Your task to perform on an android device: turn off notifications settings in the gmail app Image 0: 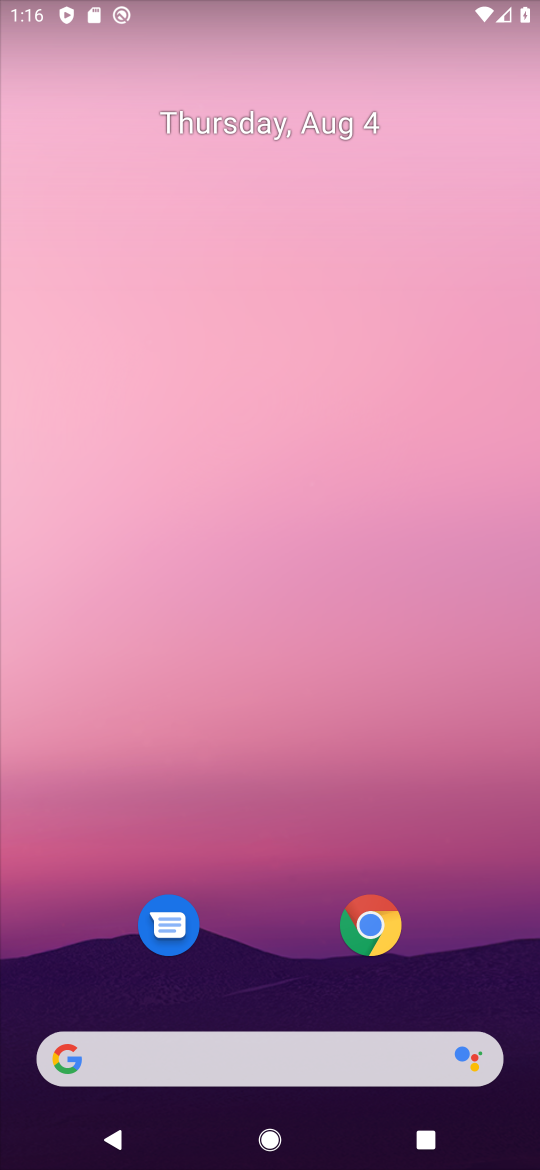
Step 0: drag from (258, 938) to (358, 39)
Your task to perform on an android device: turn off notifications settings in the gmail app Image 1: 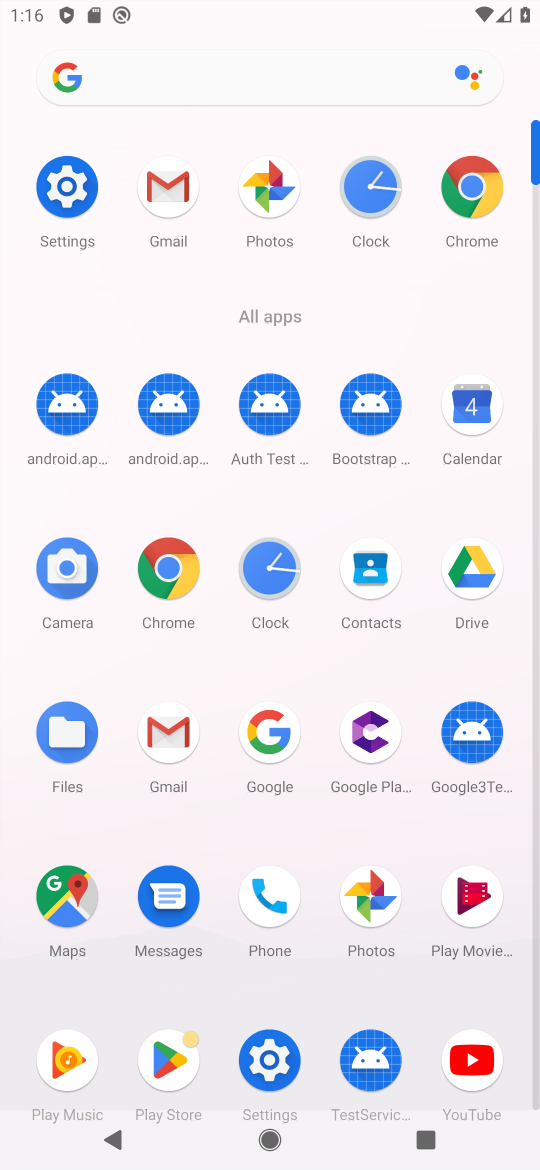
Step 1: click (167, 194)
Your task to perform on an android device: turn off notifications settings in the gmail app Image 2: 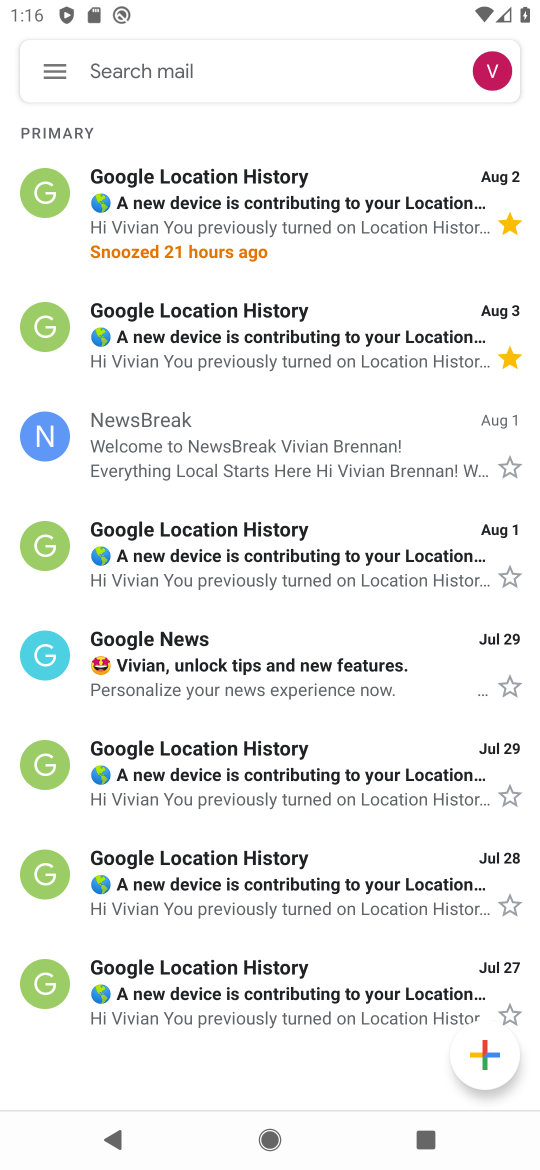
Step 2: click (59, 79)
Your task to perform on an android device: turn off notifications settings in the gmail app Image 3: 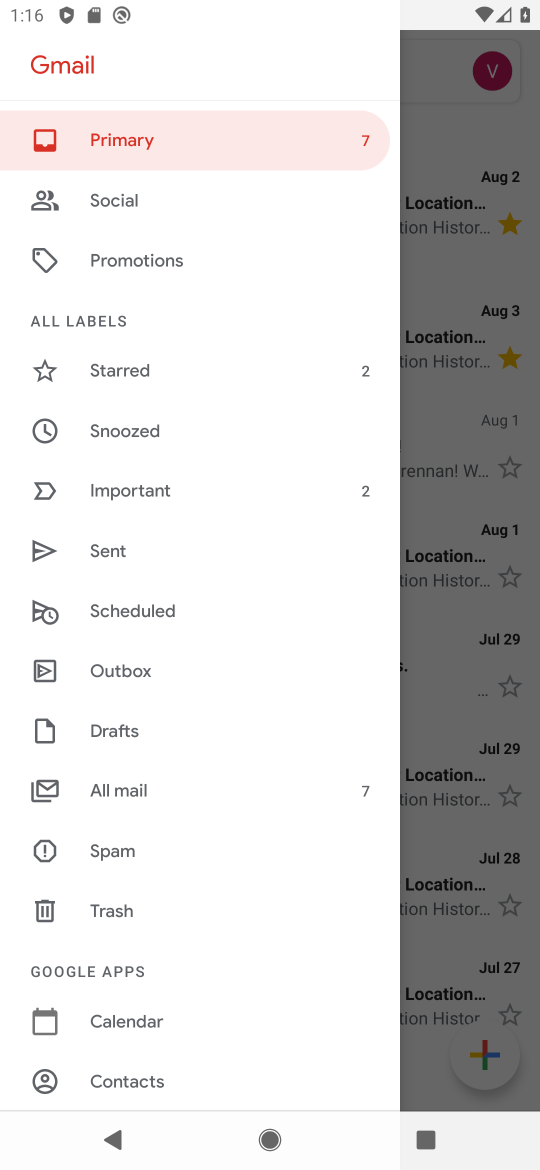
Step 3: drag from (269, 1013) to (248, 965)
Your task to perform on an android device: turn off notifications settings in the gmail app Image 4: 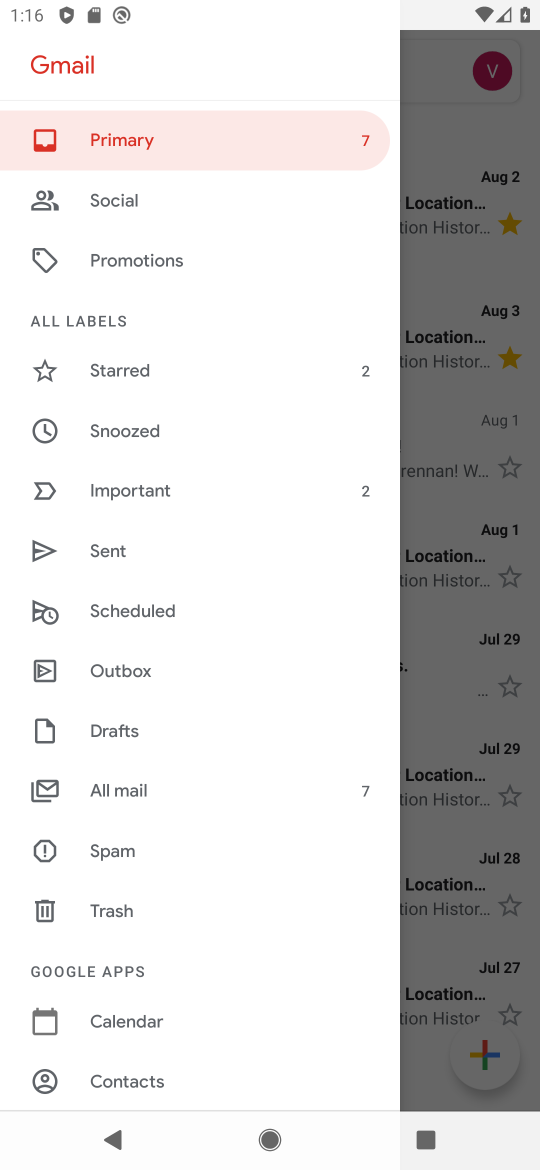
Step 4: drag from (265, 1003) to (311, 393)
Your task to perform on an android device: turn off notifications settings in the gmail app Image 5: 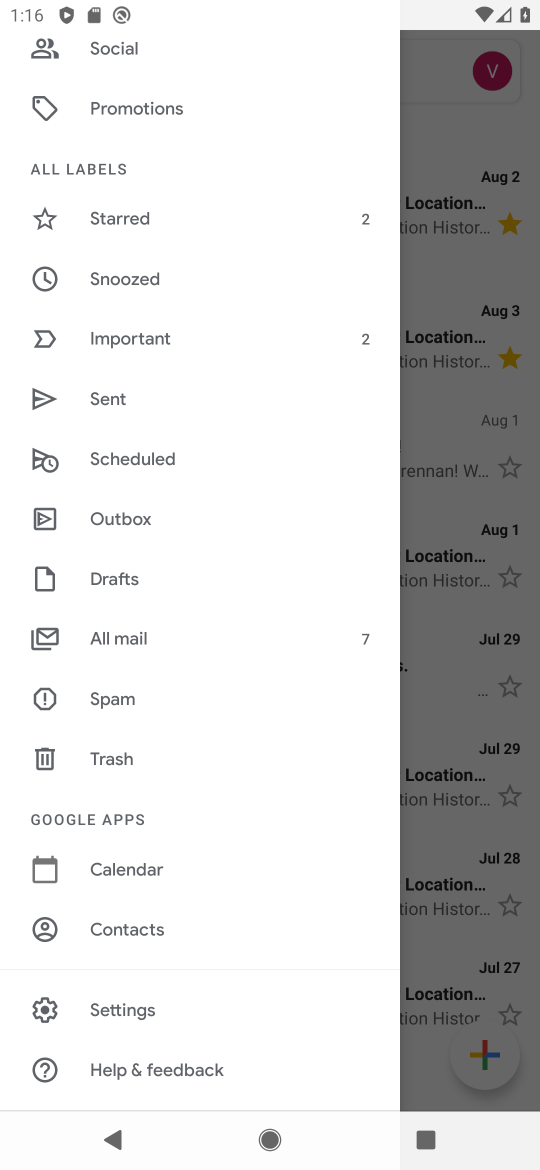
Step 5: click (138, 1009)
Your task to perform on an android device: turn off notifications settings in the gmail app Image 6: 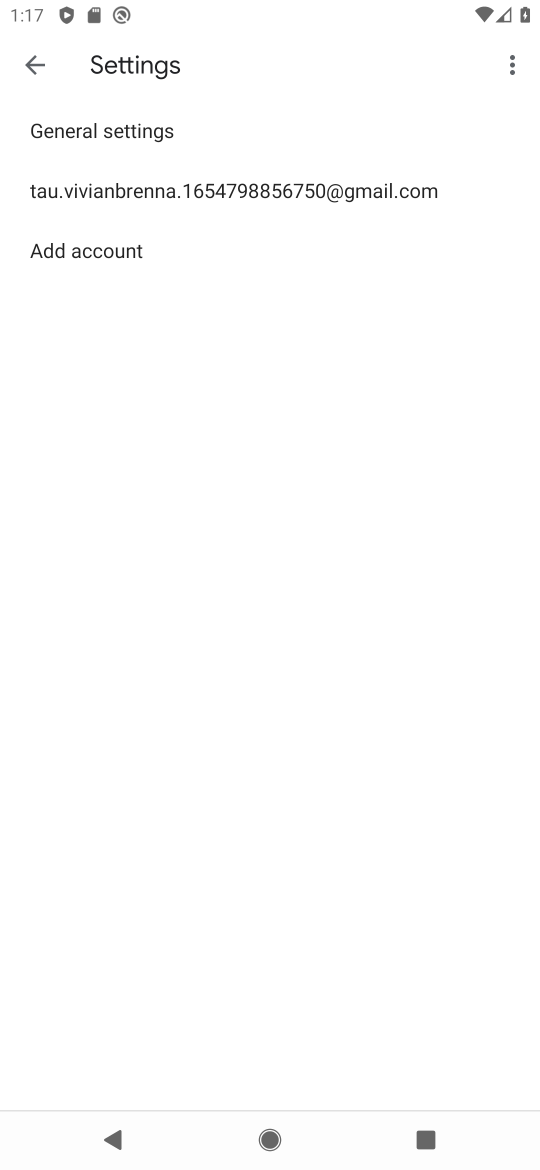
Step 6: click (116, 132)
Your task to perform on an android device: turn off notifications settings in the gmail app Image 7: 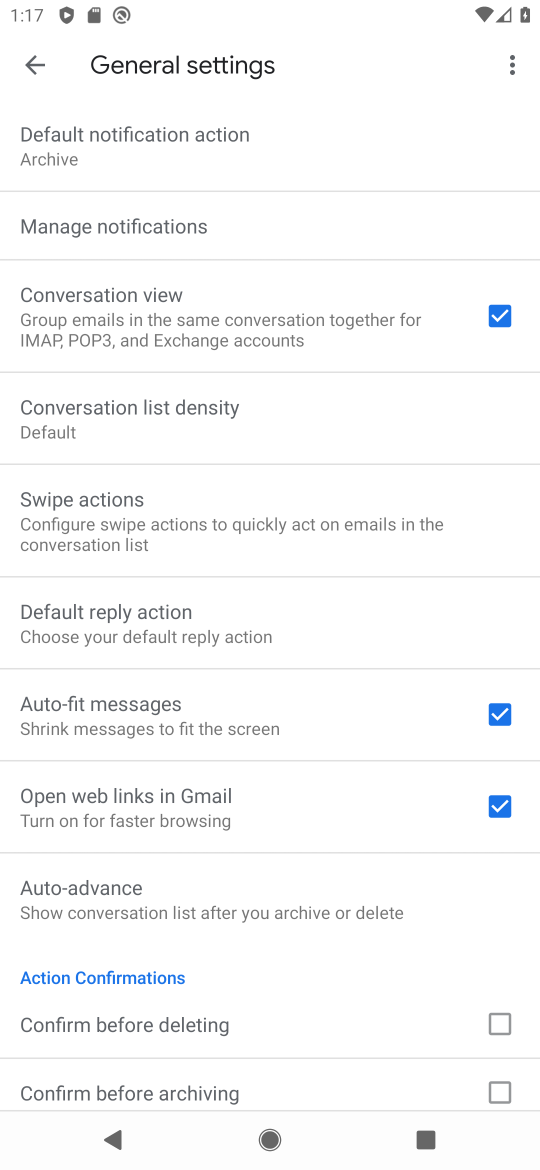
Step 7: click (152, 239)
Your task to perform on an android device: turn off notifications settings in the gmail app Image 8: 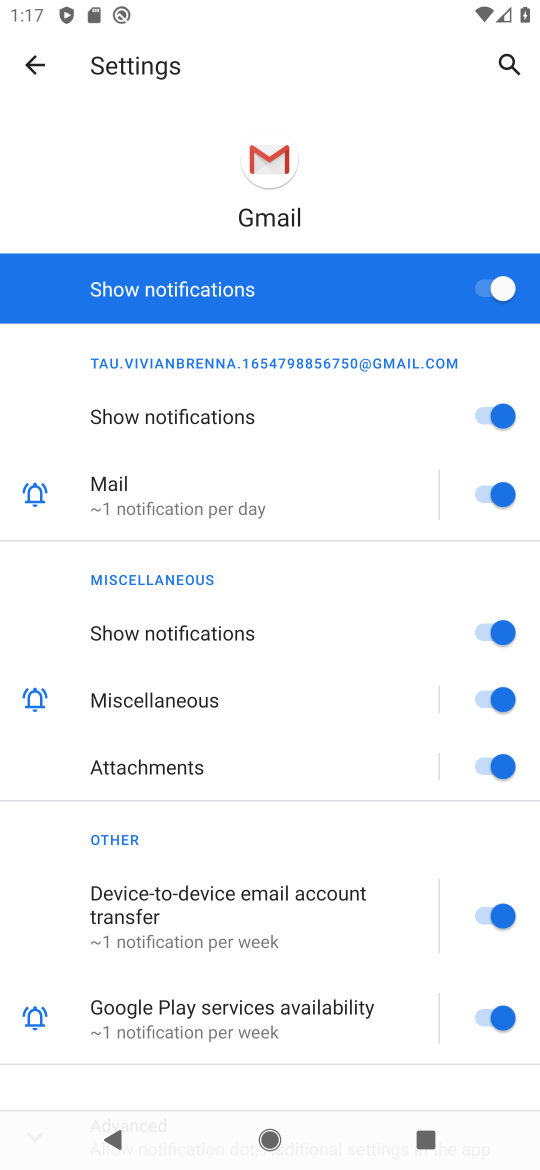
Step 8: click (504, 286)
Your task to perform on an android device: turn off notifications settings in the gmail app Image 9: 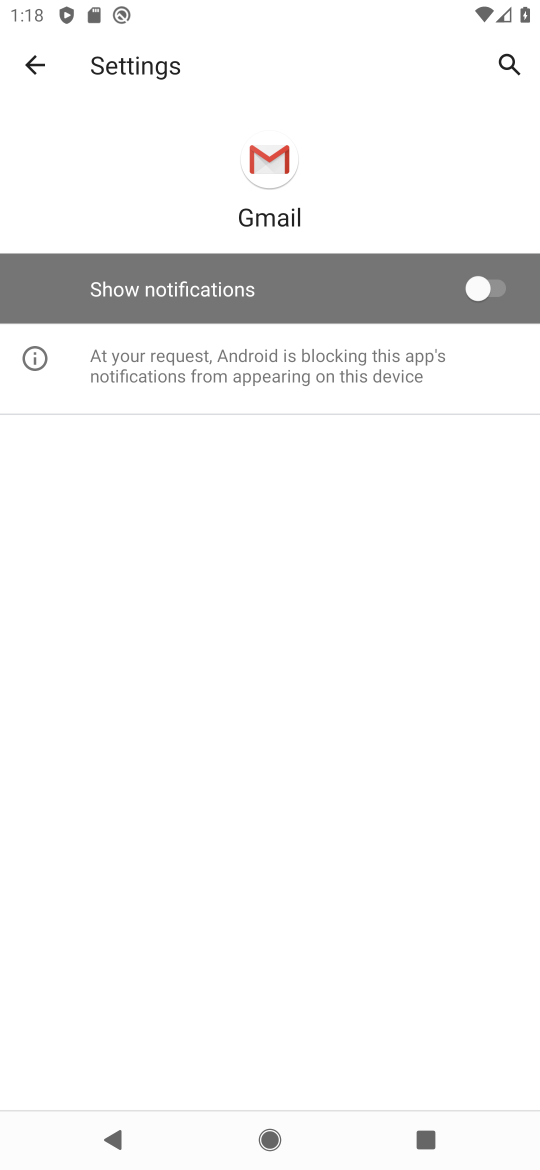
Step 9: task complete